Your task to perform on an android device: check android version Image 0: 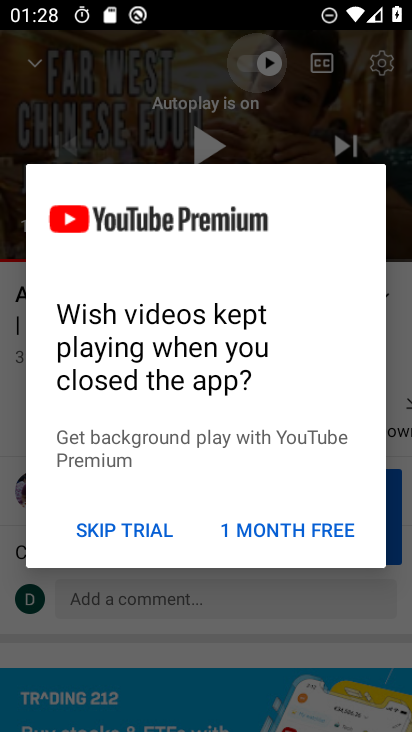
Step 0: press home button
Your task to perform on an android device: check android version Image 1: 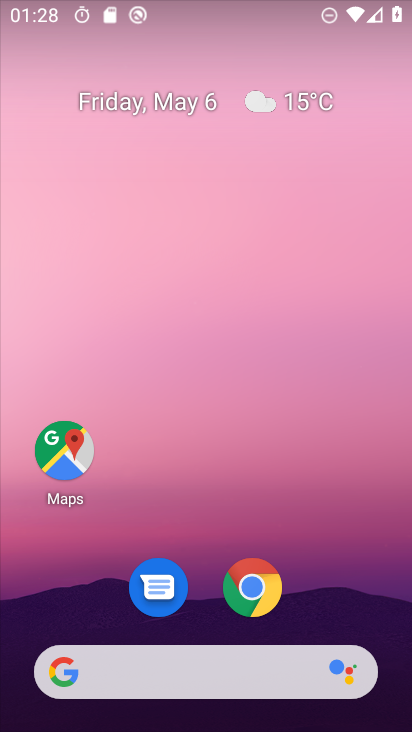
Step 1: drag from (394, 670) to (376, 425)
Your task to perform on an android device: check android version Image 2: 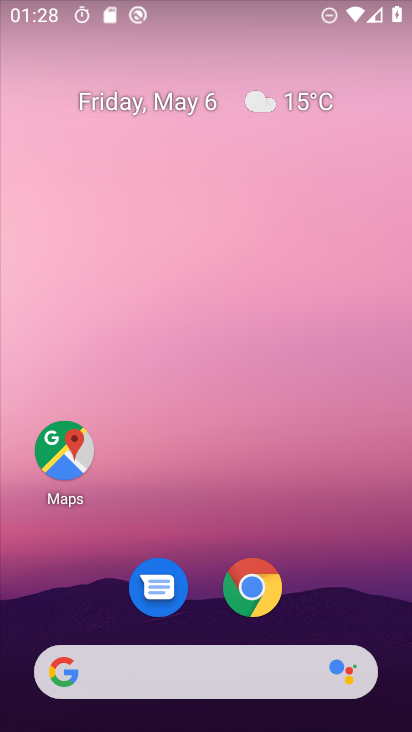
Step 2: drag from (389, 655) to (284, 204)
Your task to perform on an android device: check android version Image 3: 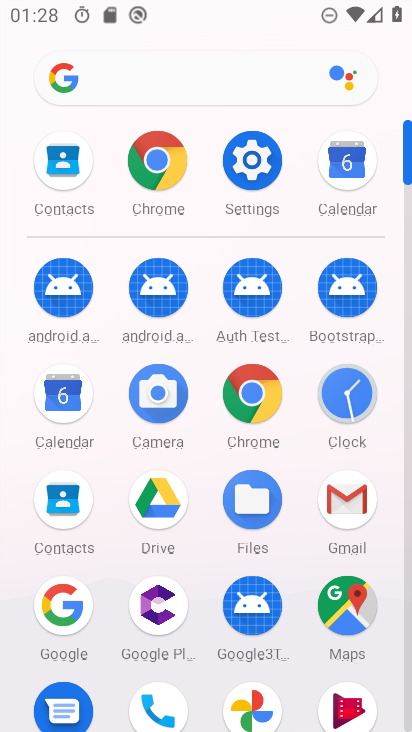
Step 3: click (261, 146)
Your task to perform on an android device: check android version Image 4: 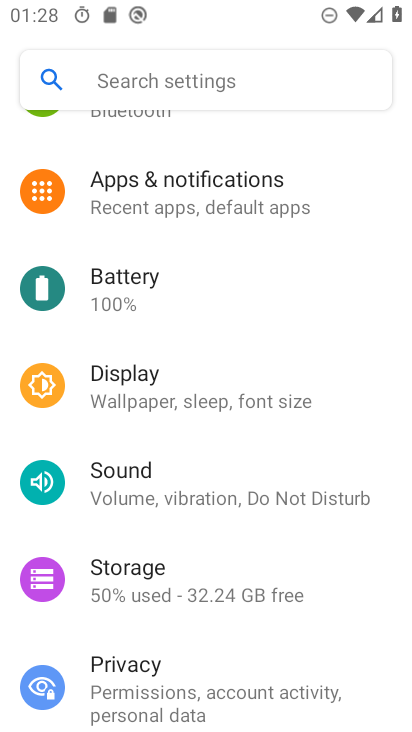
Step 4: drag from (359, 672) to (313, 237)
Your task to perform on an android device: check android version Image 5: 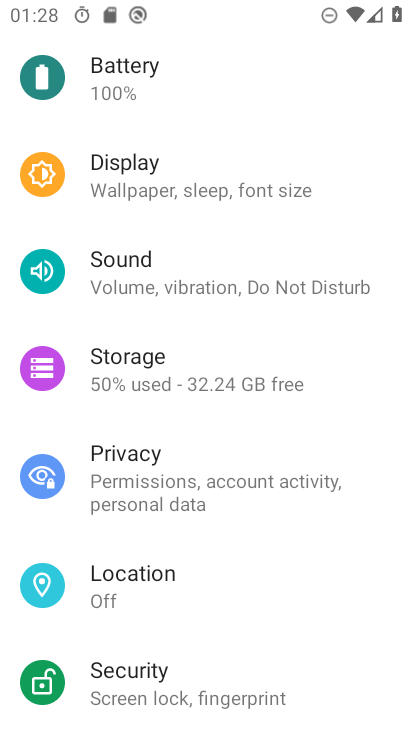
Step 5: drag from (348, 687) to (327, 318)
Your task to perform on an android device: check android version Image 6: 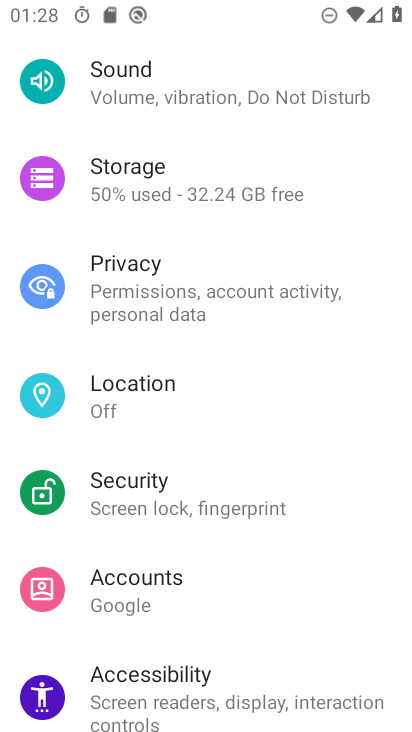
Step 6: drag from (359, 698) to (309, 382)
Your task to perform on an android device: check android version Image 7: 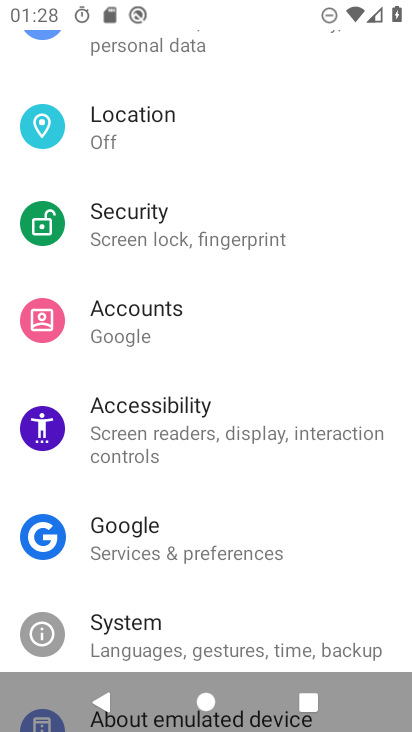
Step 7: drag from (340, 634) to (320, 289)
Your task to perform on an android device: check android version Image 8: 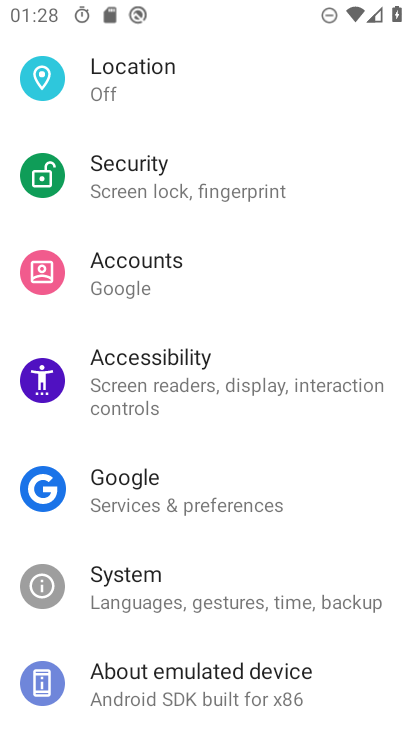
Step 8: click (129, 690)
Your task to perform on an android device: check android version Image 9: 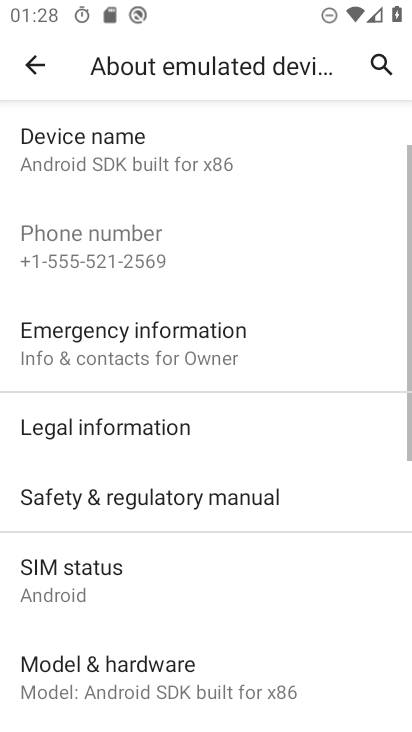
Step 9: drag from (315, 648) to (299, 370)
Your task to perform on an android device: check android version Image 10: 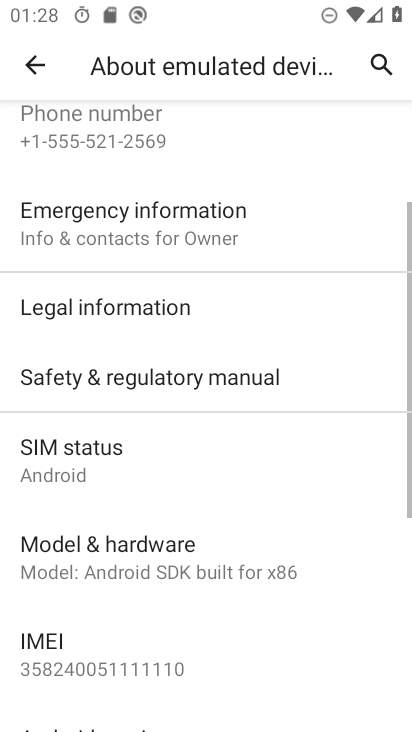
Step 10: drag from (292, 699) to (282, 340)
Your task to perform on an android device: check android version Image 11: 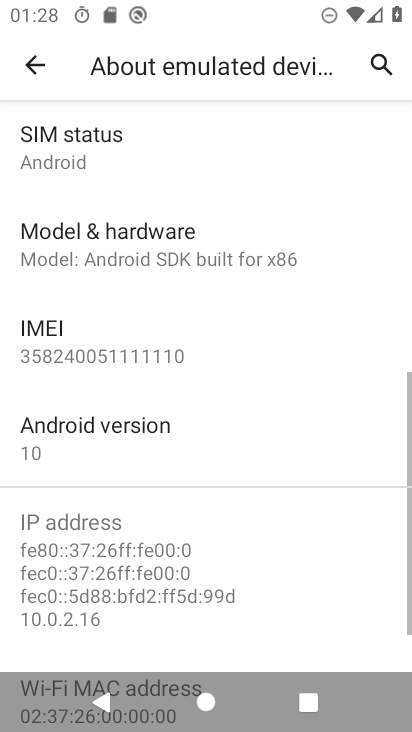
Step 11: drag from (264, 543) to (254, 320)
Your task to perform on an android device: check android version Image 12: 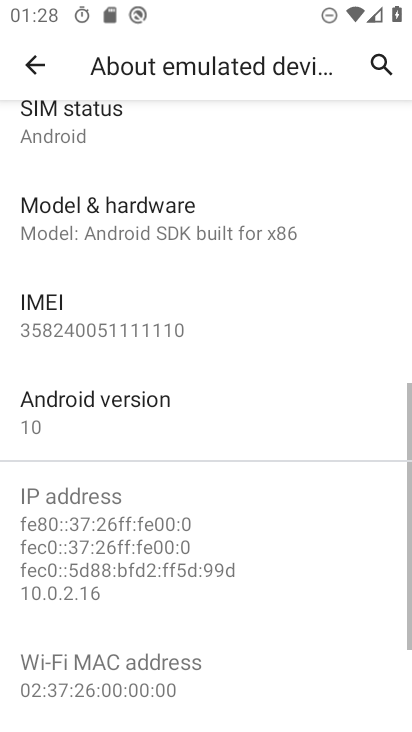
Step 12: click (88, 398)
Your task to perform on an android device: check android version Image 13: 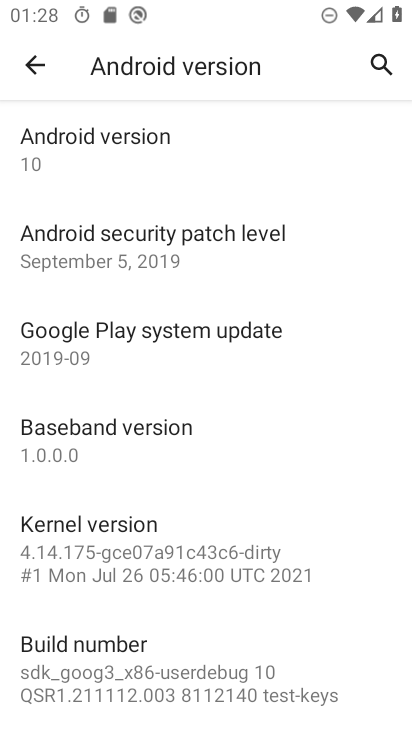
Step 13: click (125, 134)
Your task to perform on an android device: check android version Image 14: 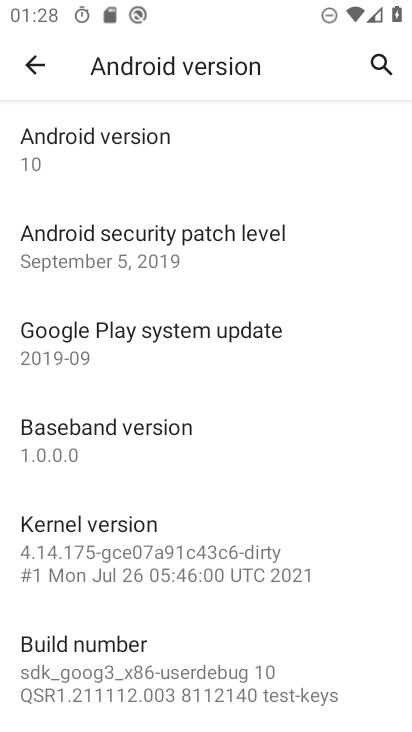
Step 14: task complete